Your task to perform on an android device: Add asus rog to the cart on bestbuy Image 0: 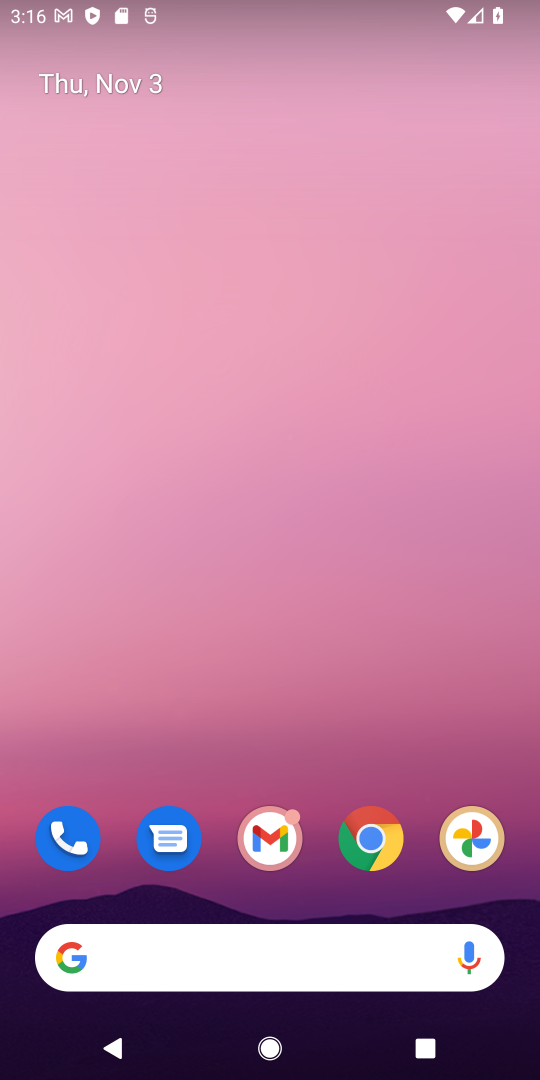
Step 0: drag from (320, 896) to (355, 186)
Your task to perform on an android device: Add asus rog to the cart on bestbuy Image 1: 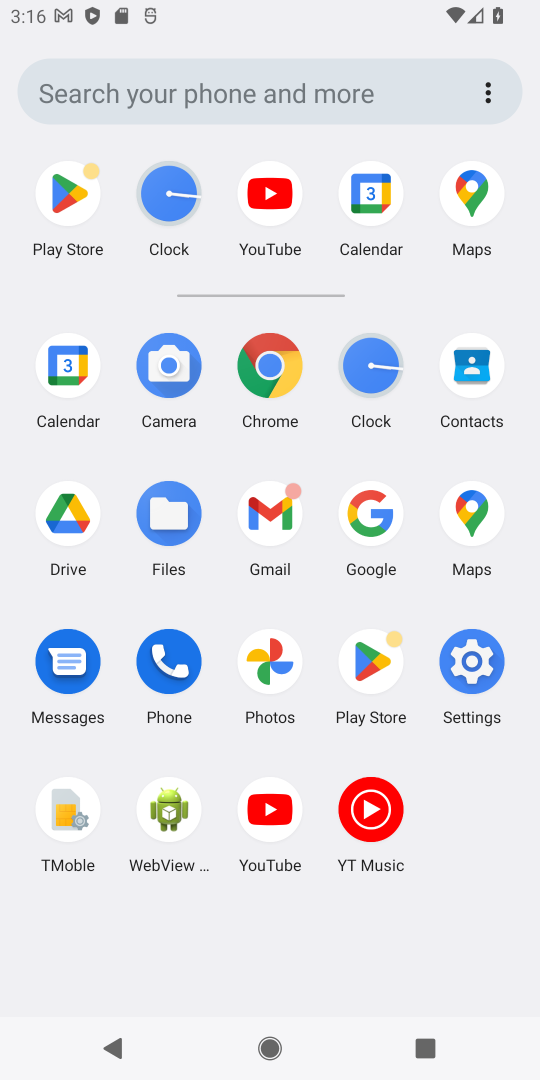
Step 1: click (271, 370)
Your task to perform on an android device: Add asus rog to the cart on bestbuy Image 2: 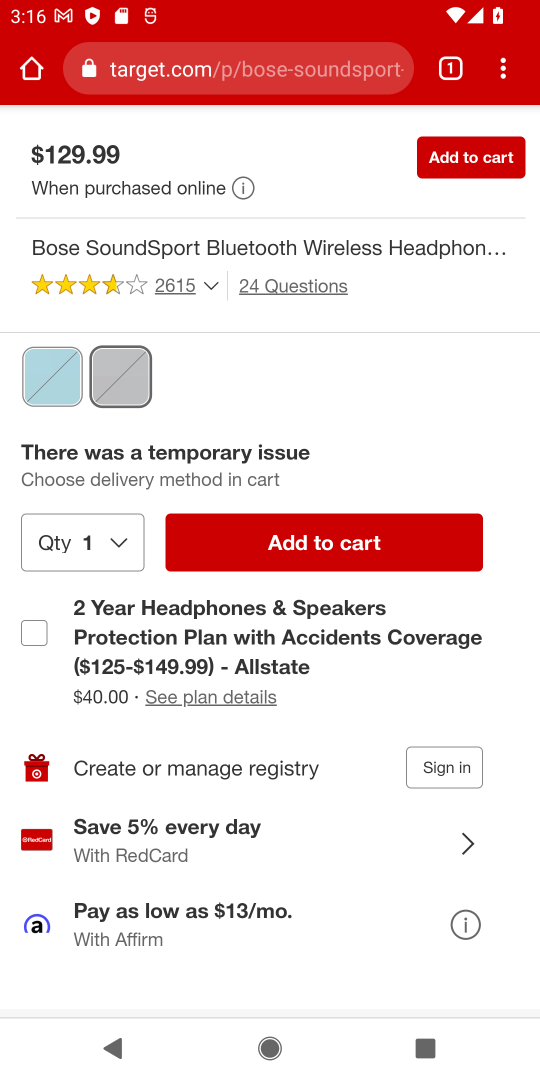
Step 2: click (276, 71)
Your task to perform on an android device: Add asus rog to the cart on bestbuy Image 3: 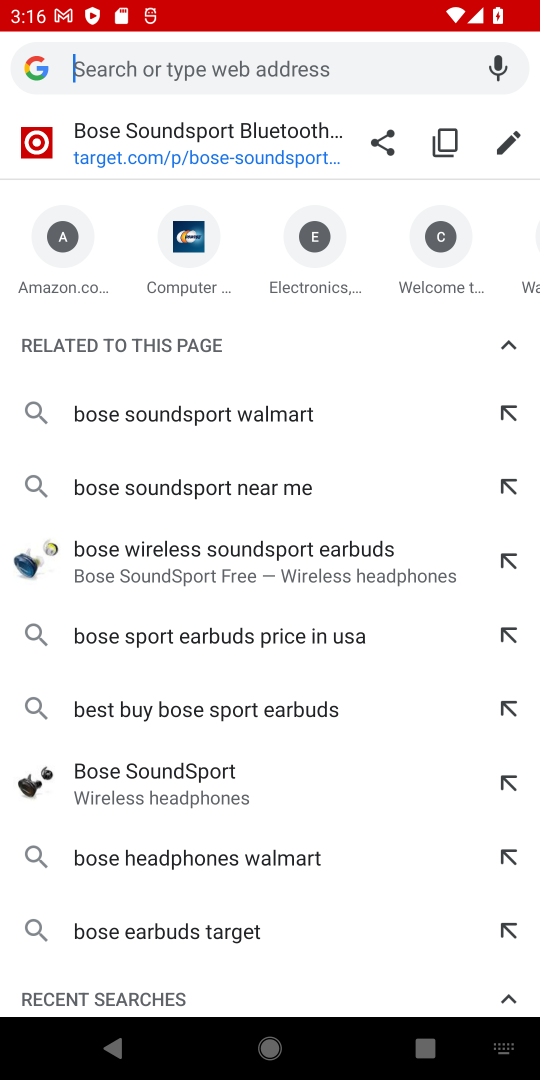
Step 3: type "bestbuy.com"
Your task to perform on an android device: Add asus rog to the cart on bestbuy Image 4: 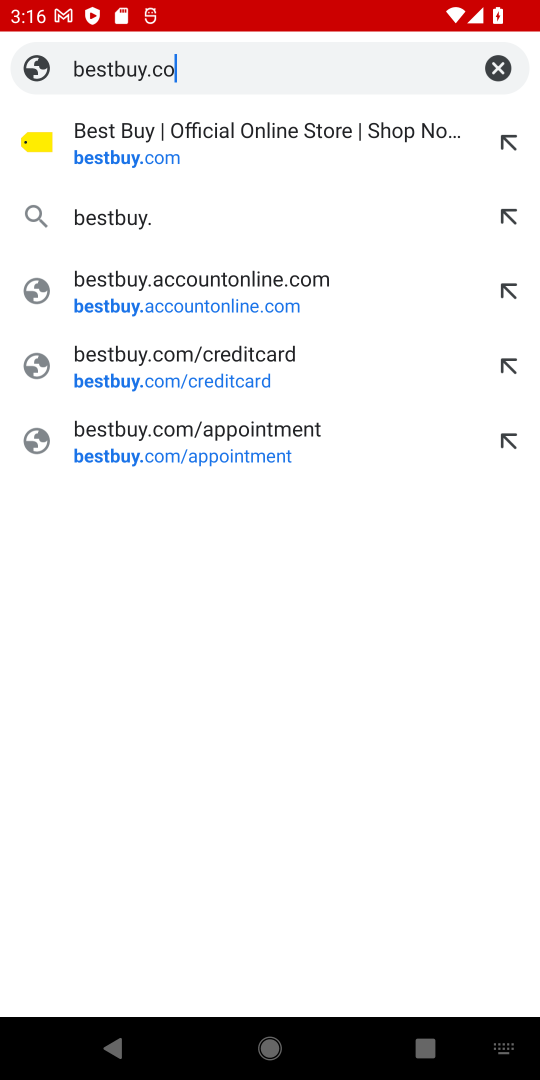
Step 4: press enter
Your task to perform on an android device: Add asus rog to the cart on bestbuy Image 5: 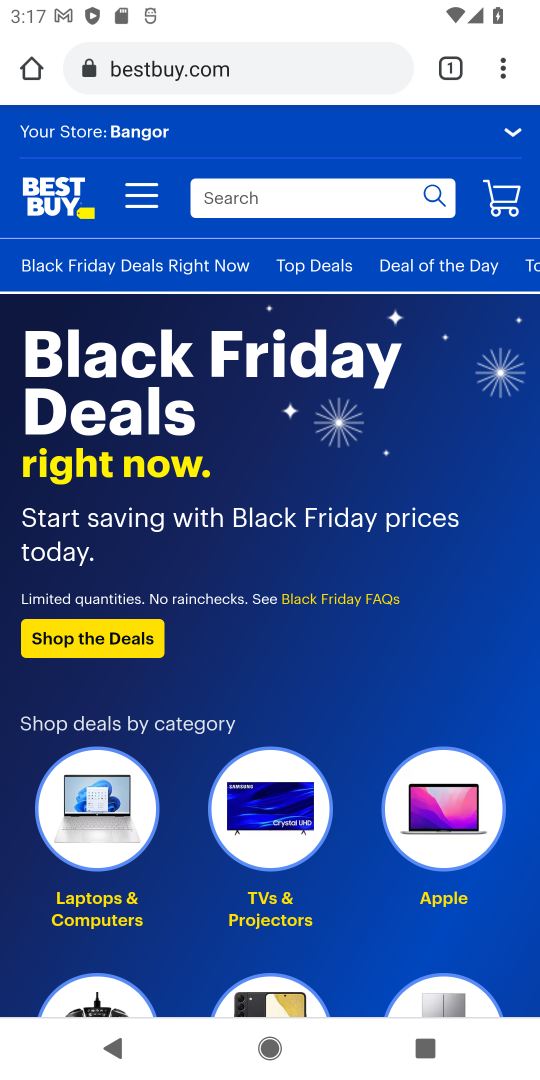
Step 5: click (315, 196)
Your task to perform on an android device: Add asus rog to the cart on bestbuy Image 6: 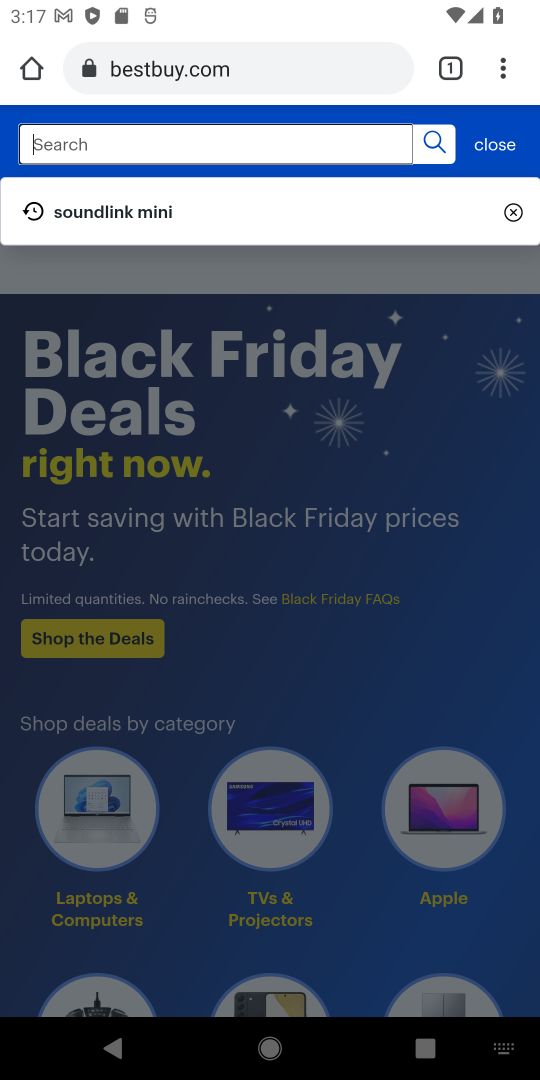
Step 6: type "asus rog"
Your task to perform on an android device: Add asus rog to the cart on bestbuy Image 7: 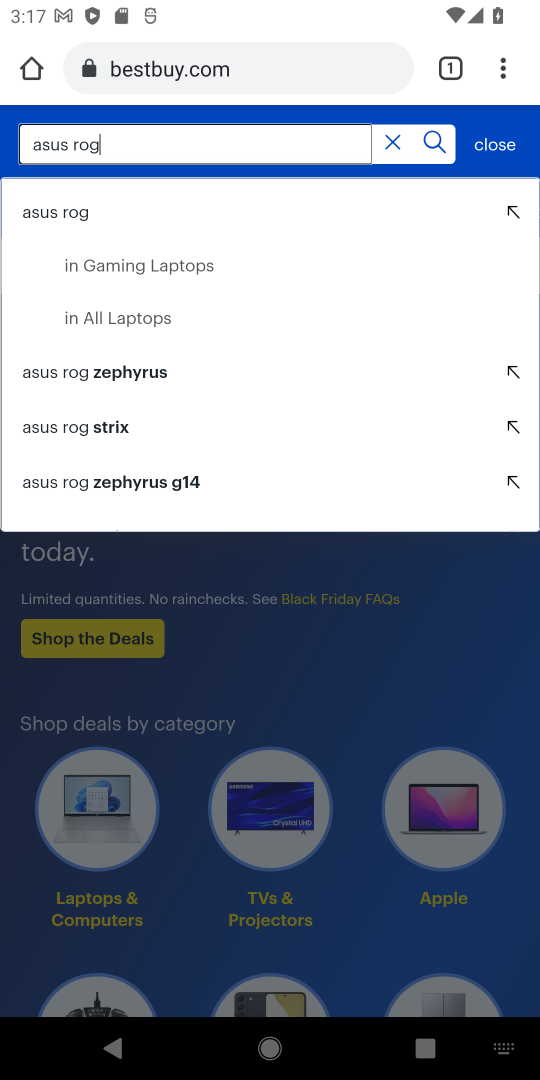
Step 7: press enter
Your task to perform on an android device: Add asus rog to the cart on bestbuy Image 8: 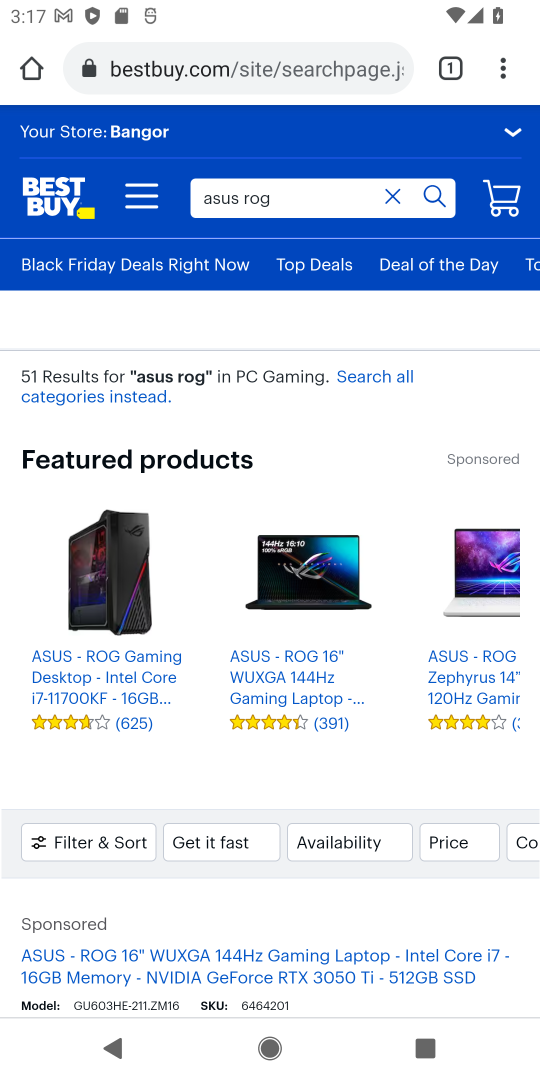
Step 8: drag from (293, 763) to (319, 256)
Your task to perform on an android device: Add asus rog to the cart on bestbuy Image 9: 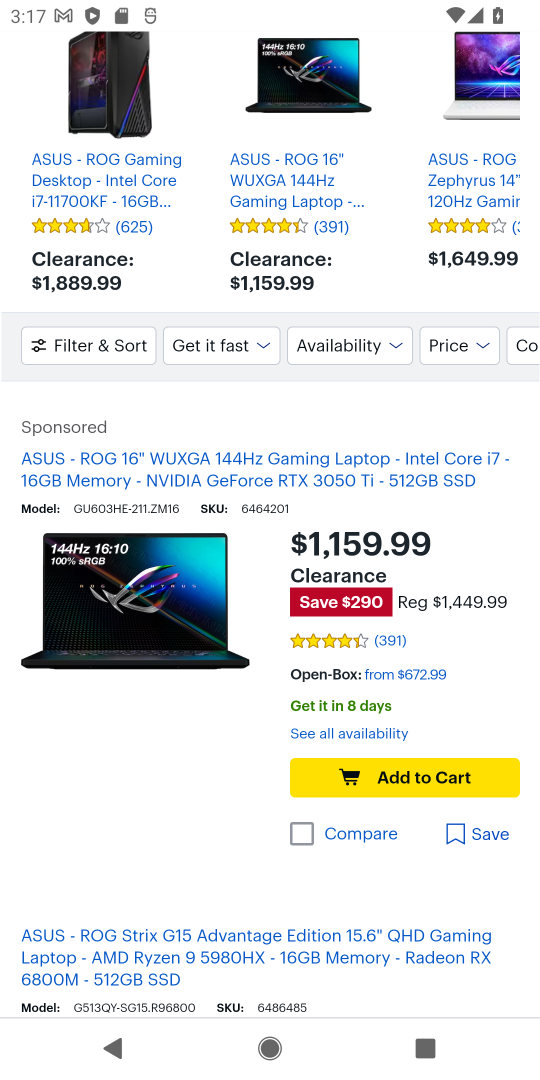
Step 9: drag from (329, 794) to (341, 425)
Your task to perform on an android device: Add asus rog to the cart on bestbuy Image 10: 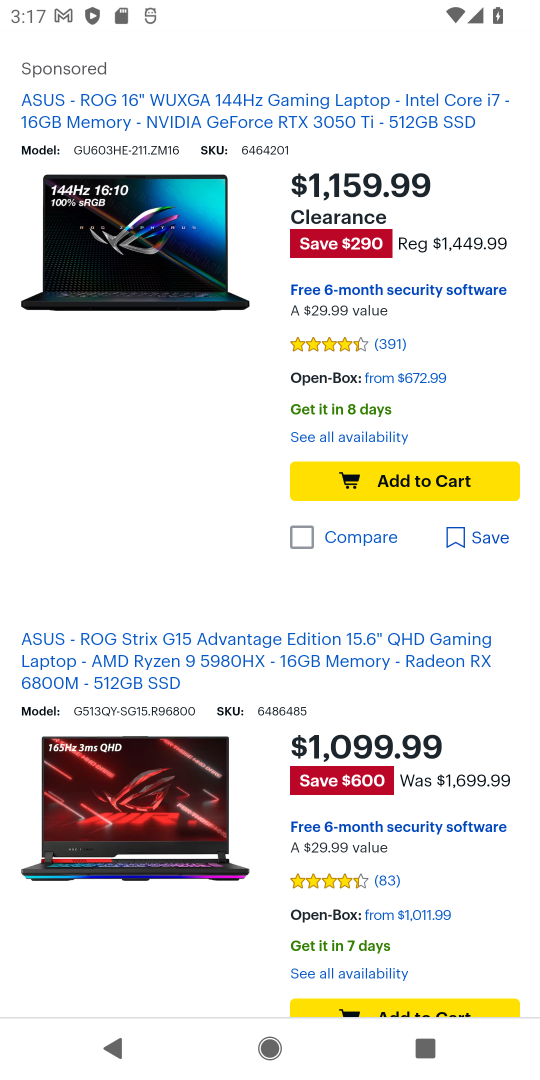
Step 10: click (387, 1007)
Your task to perform on an android device: Add asus rog to the cart on bestbuy Image 11: 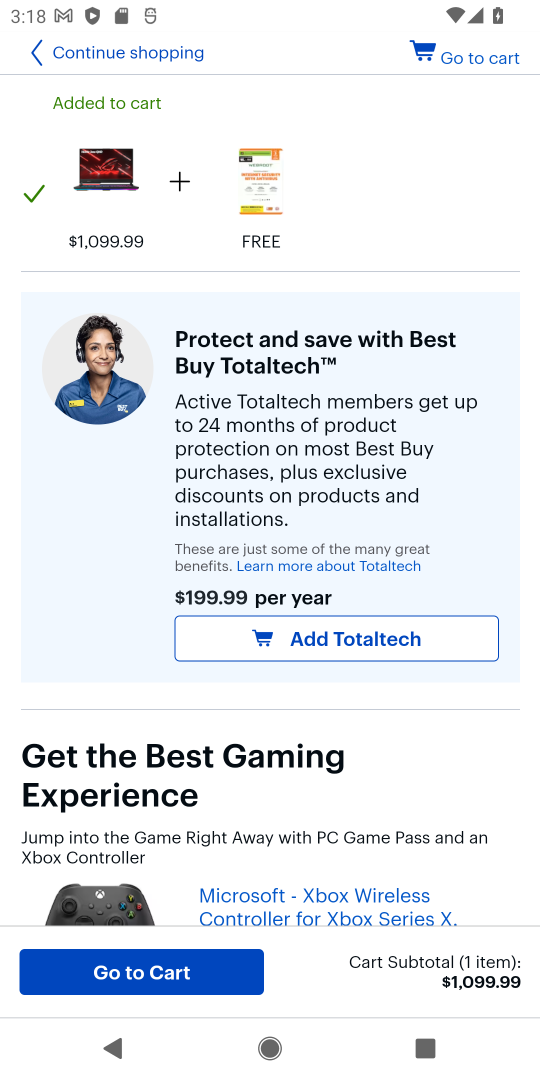
Step 11: click (116, 984)
Your task to perform on an android device: Add asus rog to the cart on bestbuy Image 12: 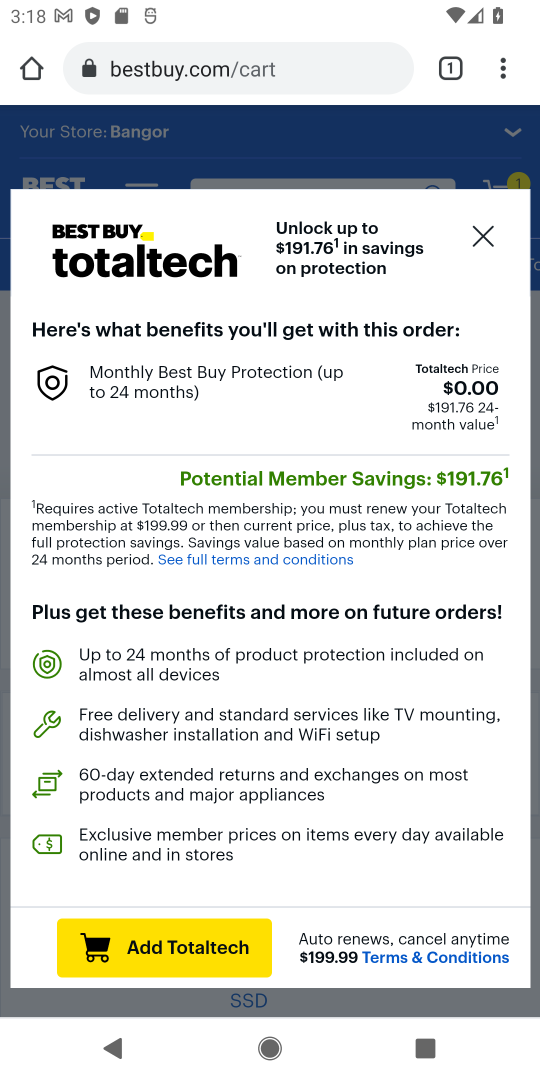
Step 12: click (484, 230)
Your task to perform on an android device: Add asus rog to the cart on bestbuy Image 13: 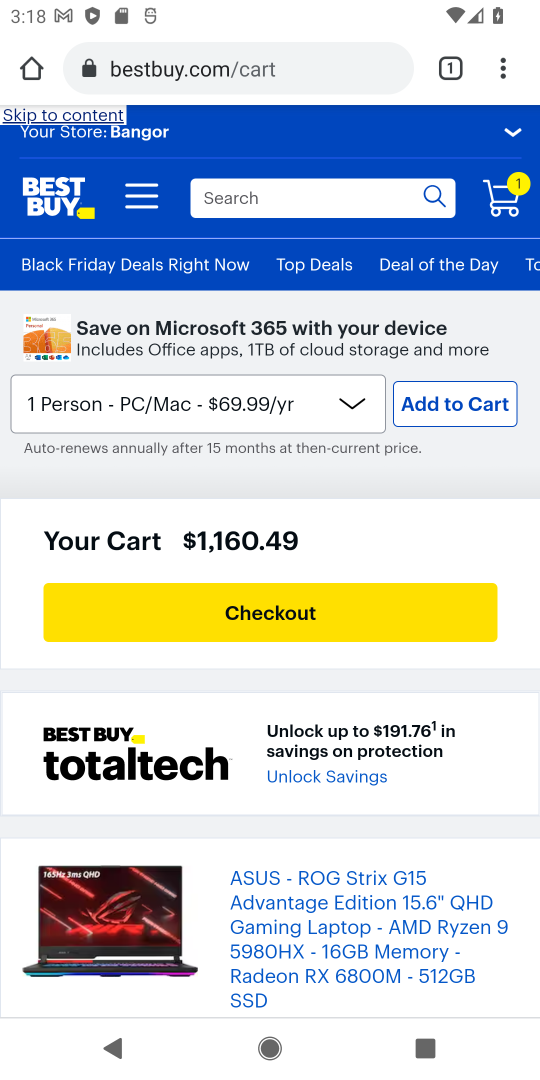
Step 13: task complete